Your task to perform on an android device: What is the recent news? Image 0: 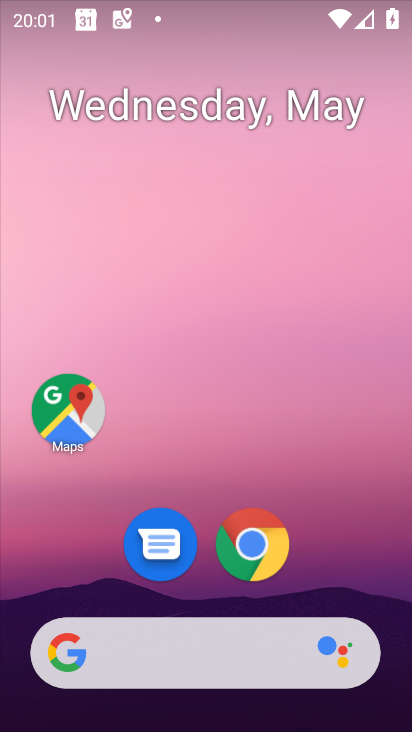
Step 0: drag from (204, 591) to (173, 272)
Your task to perform on an android device: What is the recent news? Image 1: 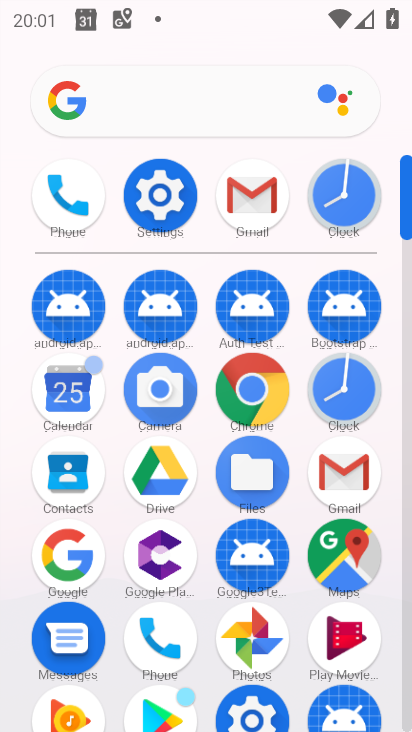
Step 1: click (74, 558)
Your task to perform on an android device: What is the recent news? Image 2: 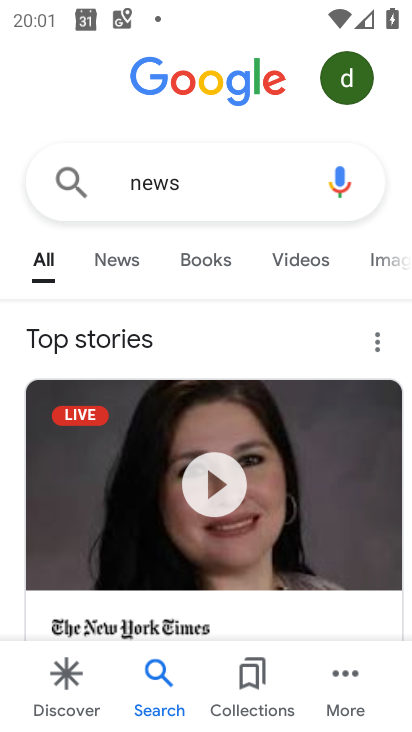
Step 2: task complete